Your task to perform on an android device: Do I have any events today? Image 0: 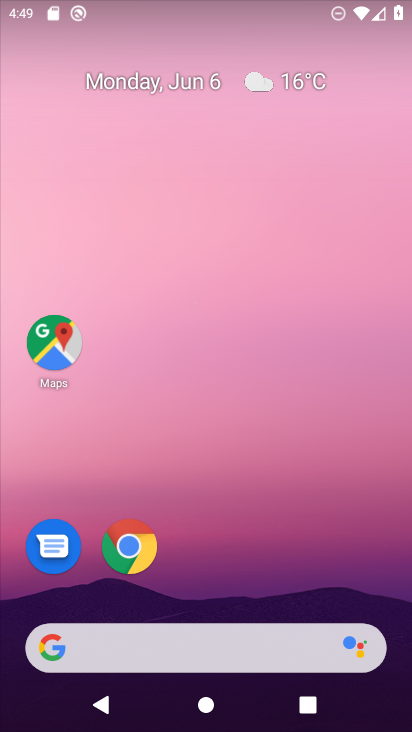
Step 0: drag from (206, 600) to (387, 611)
Your task to perform on an android device: Do I have any events today? Image 1: 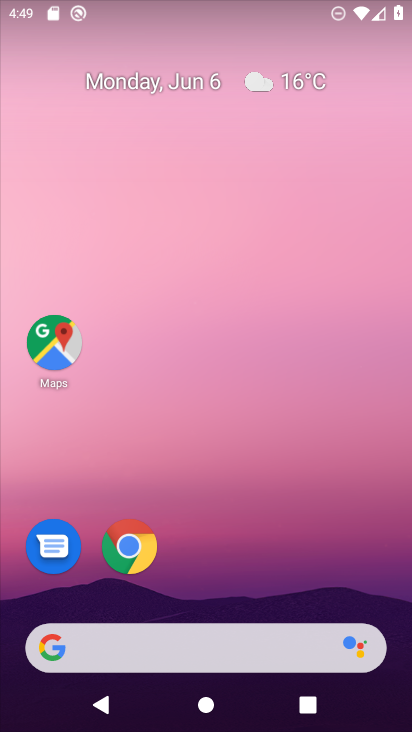
Step 1: drag from (211, 616) to (400, 31)
Your task to perform on an android device: Do I have any events today? Image 2: 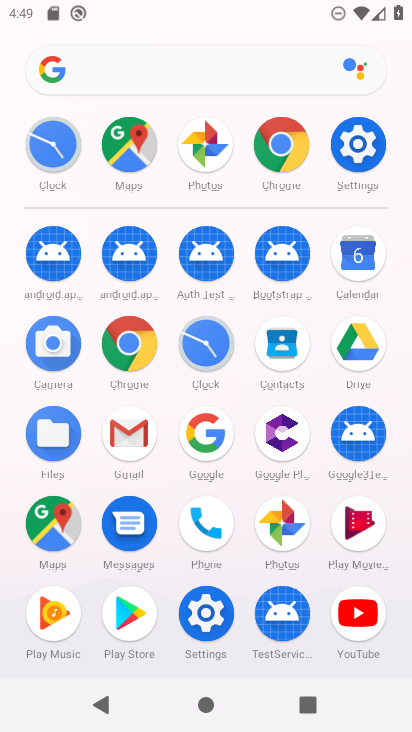
Step 2: click (353, 267)
Your task to perform on an android device: Do I have any events today? Image 3: 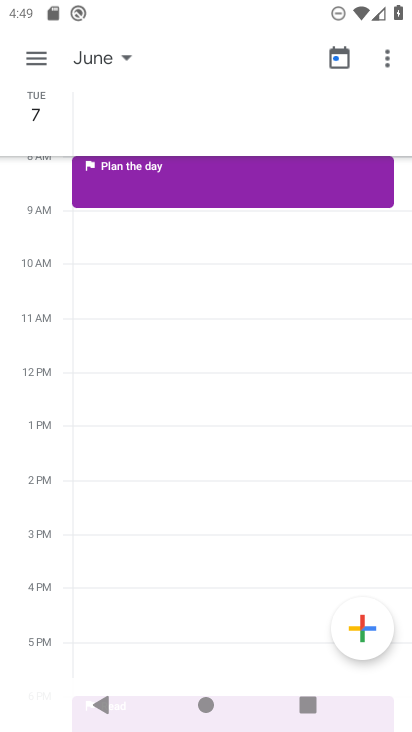
Step 3: click (333, 53)
Your task to perform on an android device: Do I have any events today? Image 4: 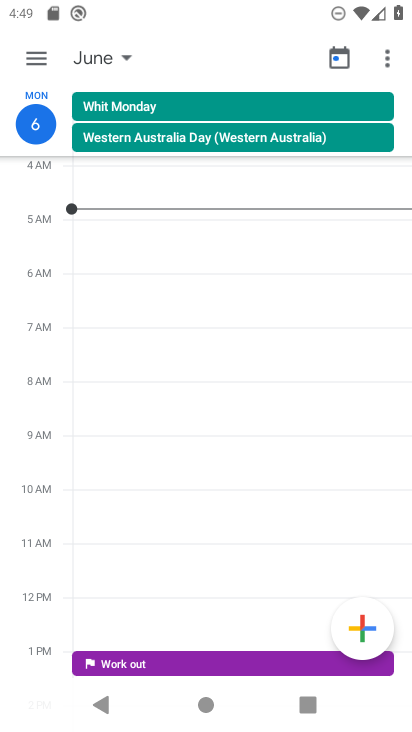
Step 4: click (27, 100)
Your task to perform on an android device: Do I have any events today? Image 5: 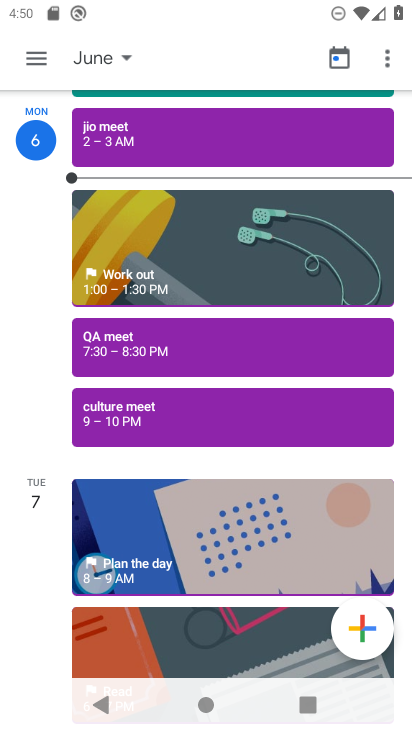
Step 5: task complete